Your task to perform on an android device: Go to network settings Image 0: 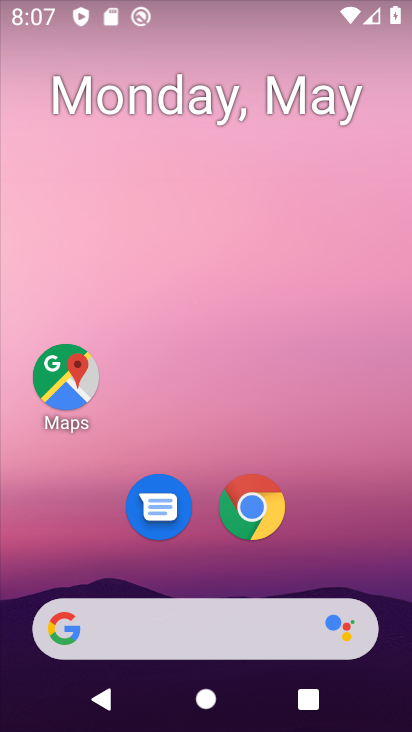
Step 0: drag from (222, 561) to (301, 2)
Your task to perform on an android device: Go to network settings Image 1: 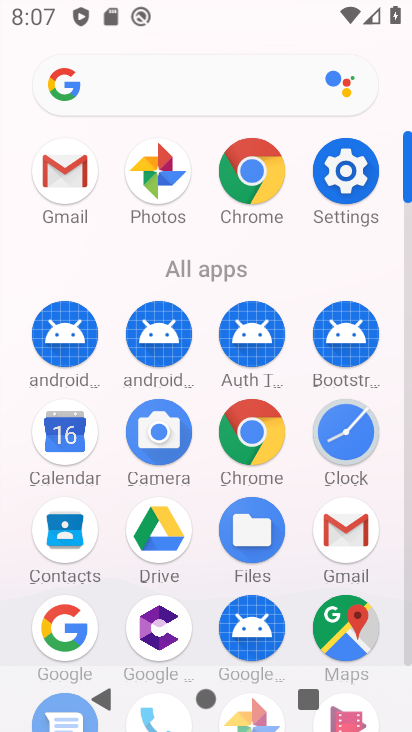
Step 1: click (354, 186)
Your task to perform on an android device: Go to network settings Image 2: 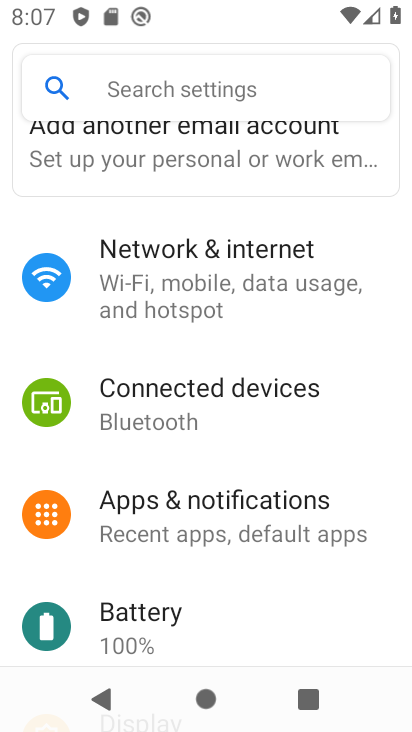
Step 2: click (208, 288)
Your task to perform on an android device: Go to network settings Image 3: 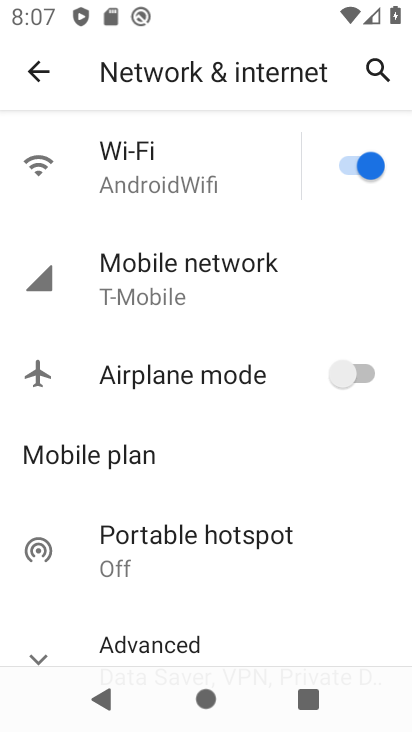
Step 3: task complete